Your task to perform on an android device: Go to eBay Image 0: 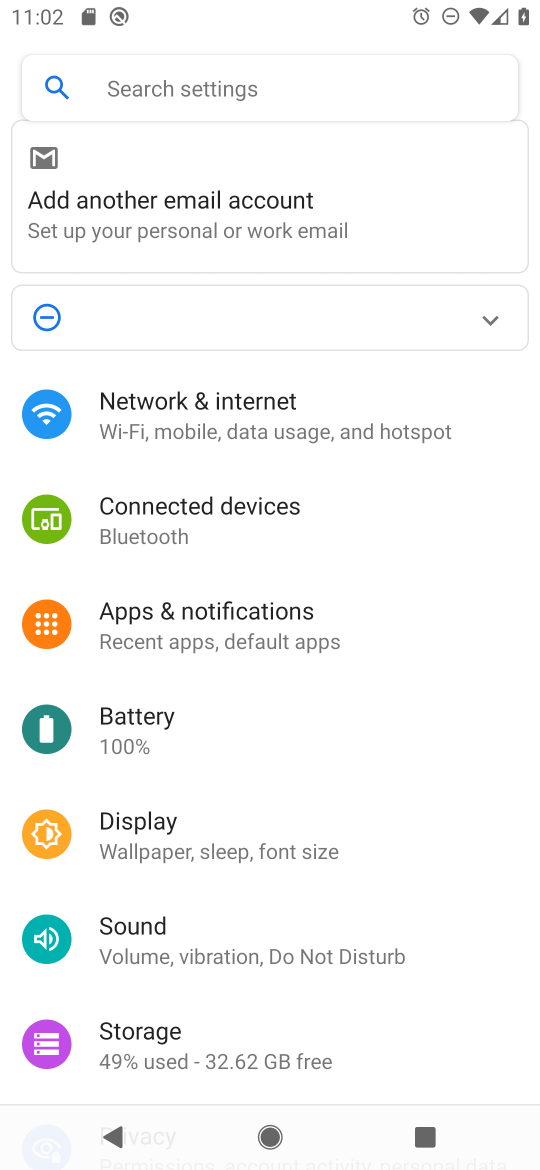
Step 0: press home button
Your task to perform on an android device: Go to eBay Image 1: 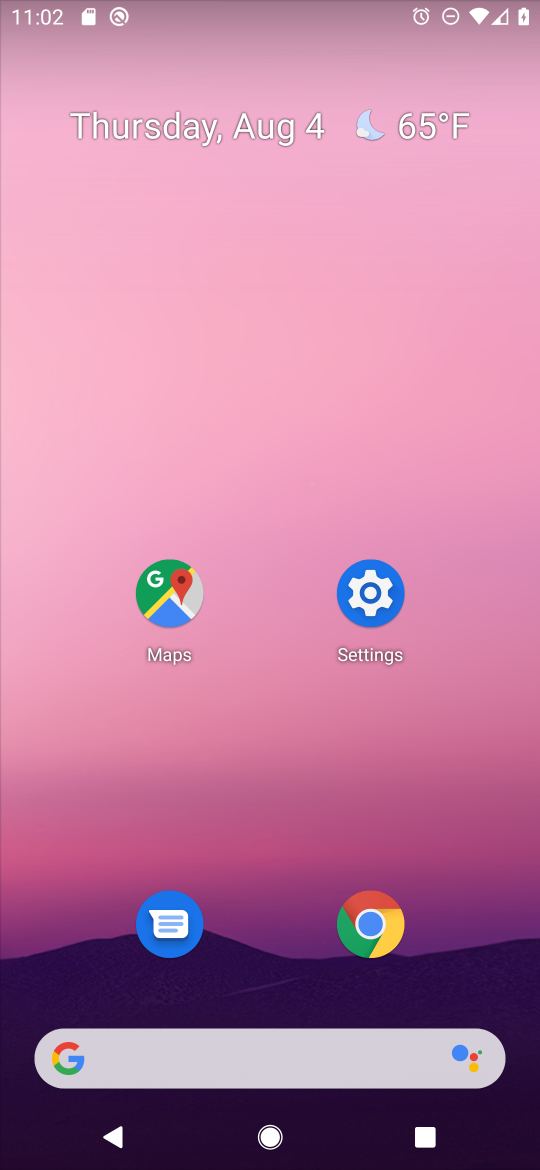
Step 1: click (366, 930)
Your task to perform on an android device: Go to eBay Image 2: 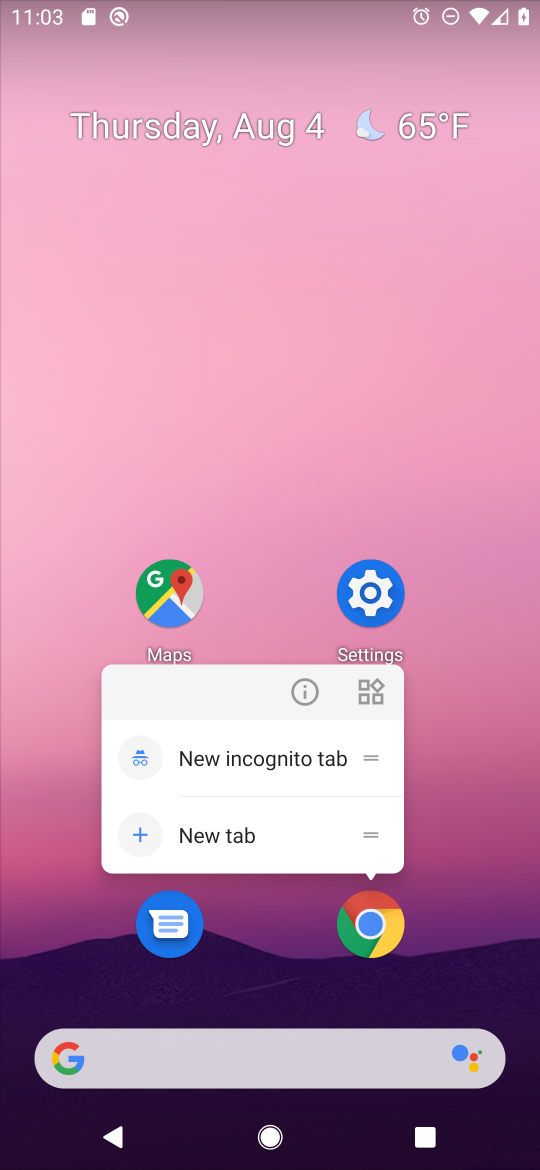
Step 2: click (366, 931)
Your task to perform on an android device: Go to eBay Image 3: 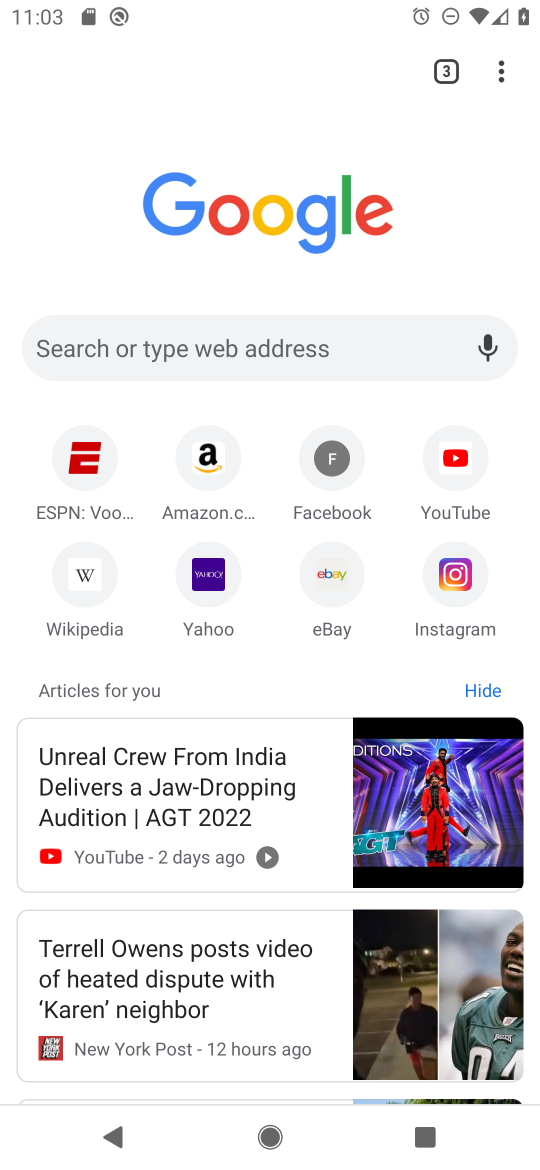
Step 3: click (327, 563)
Your task to perform on an android device: Go to eBay Image 4: 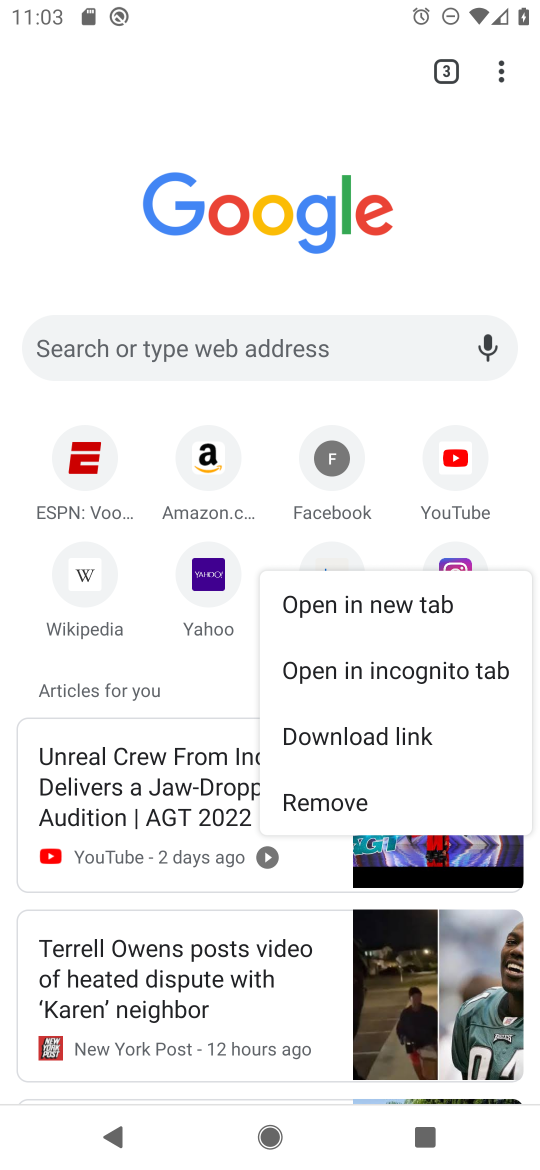
Step 4: click (327, 556)
Your task to perform on an android device: Go to eBay Image 5: 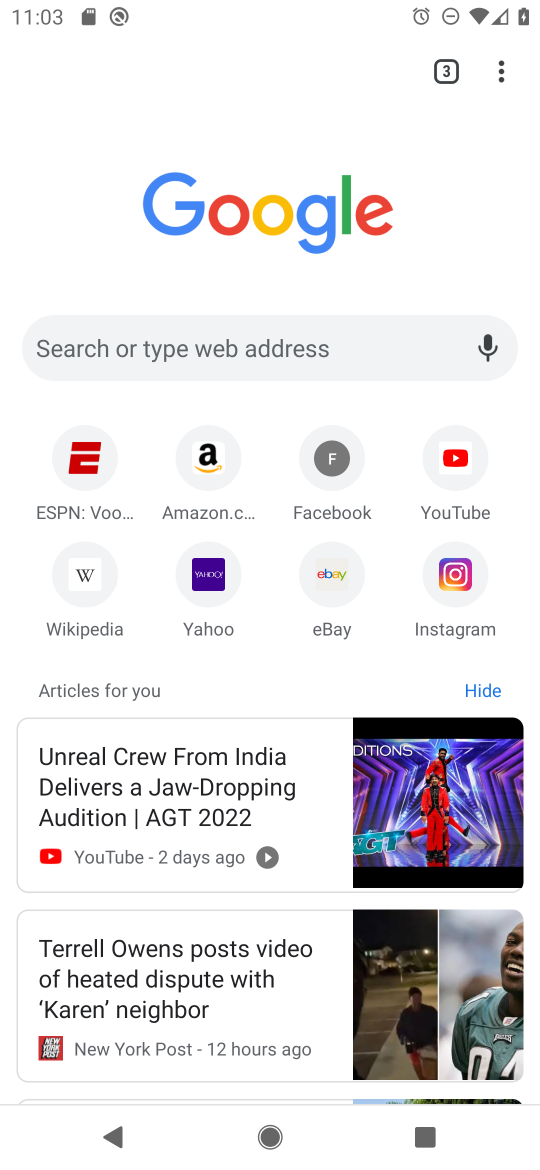
Step 5: click (334, 571)
Your task to perform on an android device: Go to eBay Image 6: 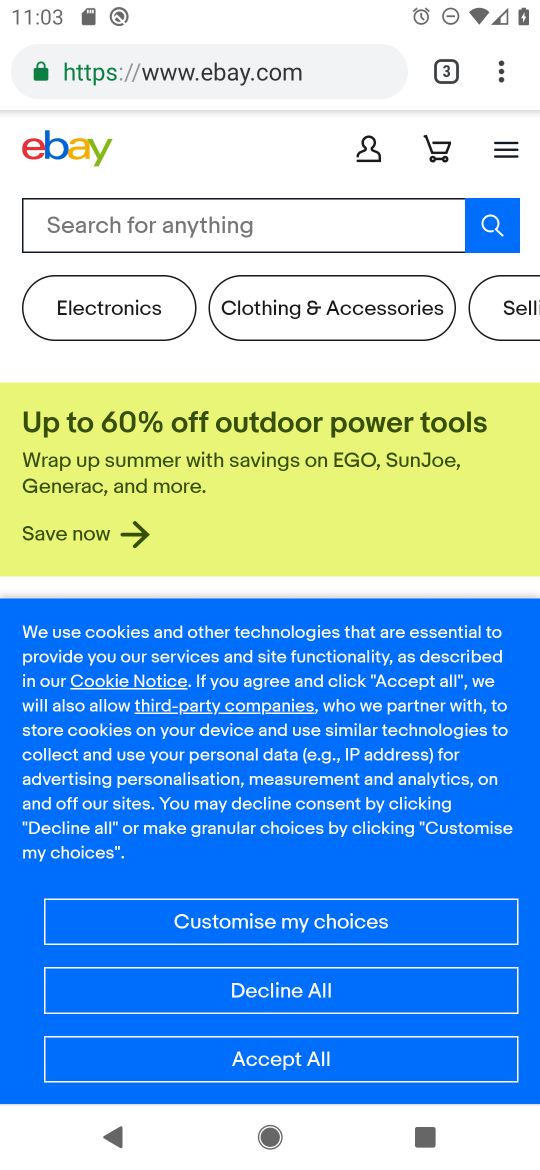
Step 6: click (280, 1055)
Your task to perform on an android device: Go to eBay Image 7: 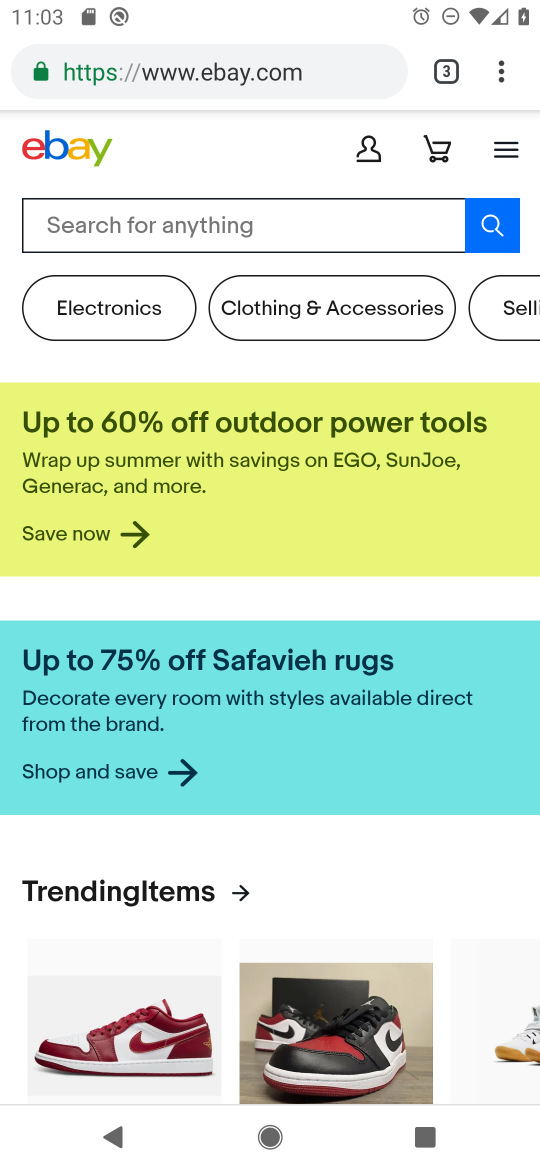
Step 7: task complete